Your task to perform on an android device: toggle airplane mode Image 0: 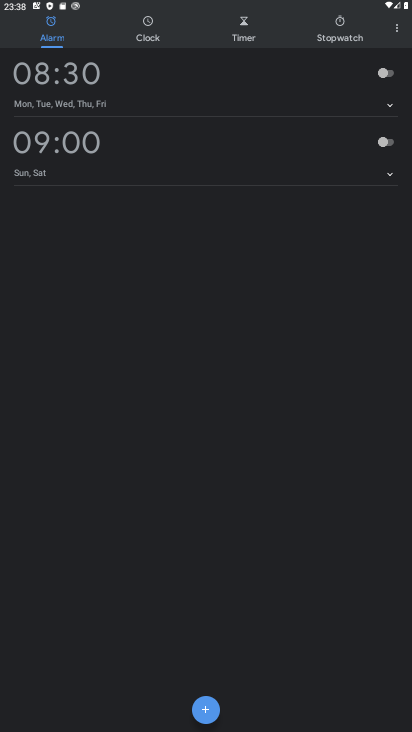
Step 0: press home button
Your task to perform on an android device: toggle airplane mode Image 1: 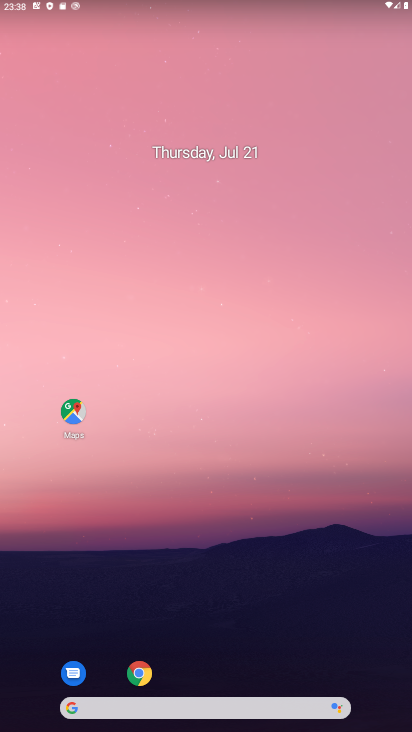
Step 1: drag from (192, 681) to (193, 122)
Your task to perform on an android device: toggle airplane mode Image 2: 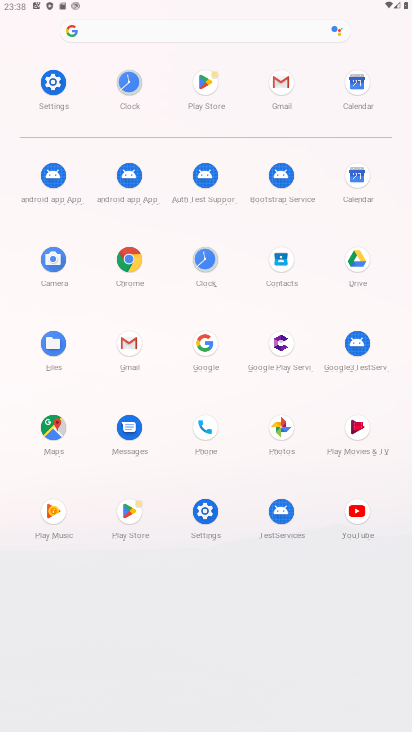
Step 2: click (55, 92)
Your task to perform on an android device: toggle airplane mode Image 3: 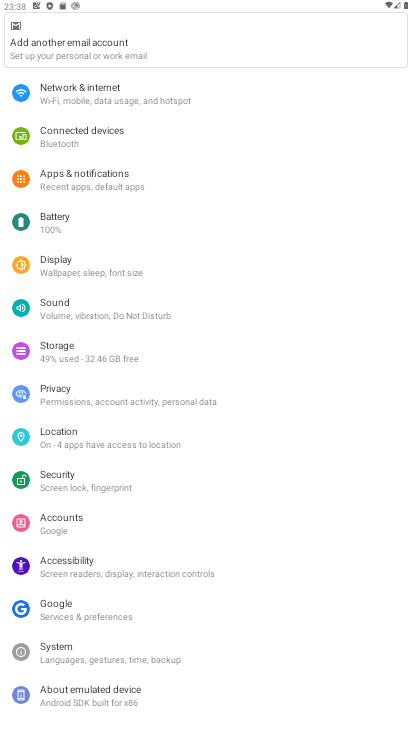
Step 3: click (142, 108)
Your task to perform on an android device: toggle airplane mode Image 4: 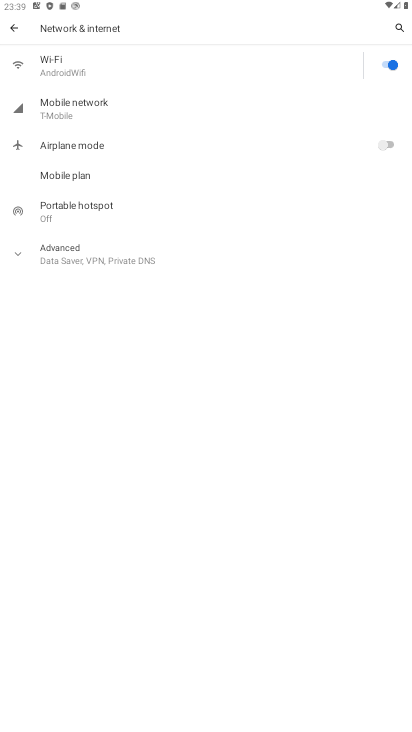
Step 4: click (386, 145)
Your task to perform on an android device: toggle airplane mode Image 5: 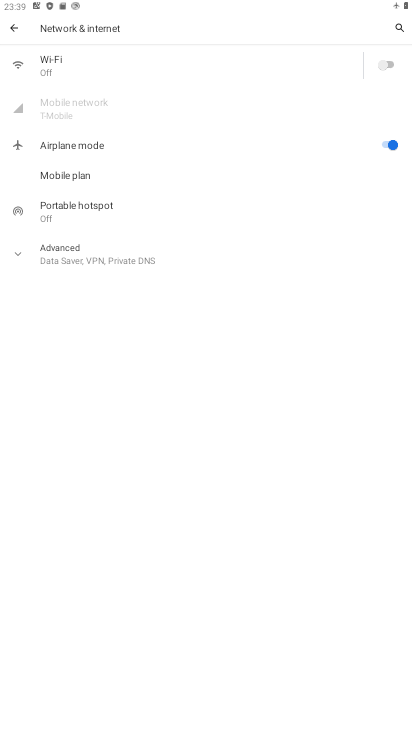
Step 5: task complete